Your task to perform on an android device: Go to network settings Image 0: 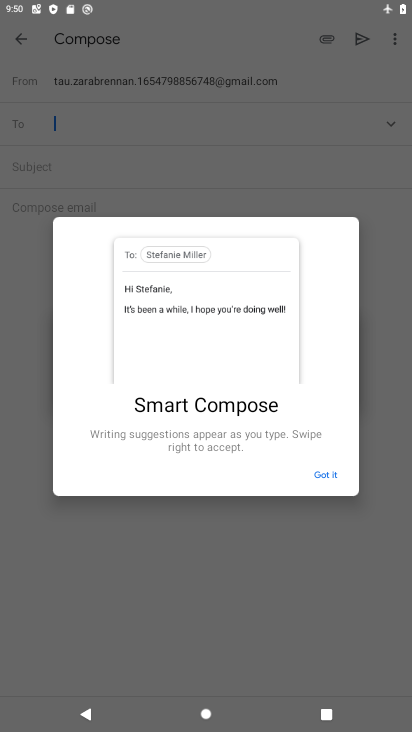
Step 0: press home button
Your task to perform on an android device: Go to network settings Image 1: 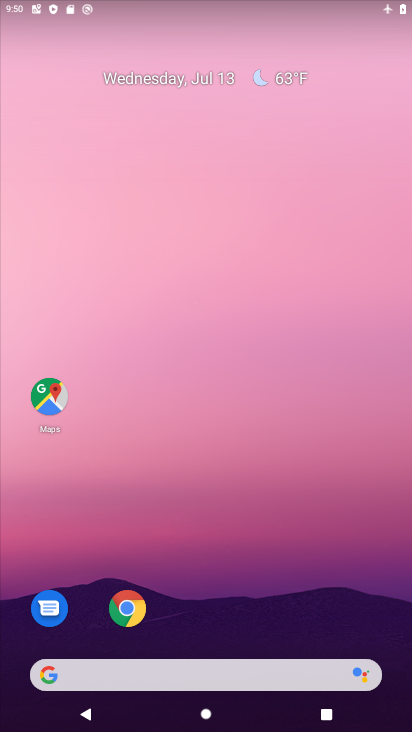
Step 1: drag from (221, 649) to (241, 72)
Your task to perform on an android device: Go to network settings Image 2: 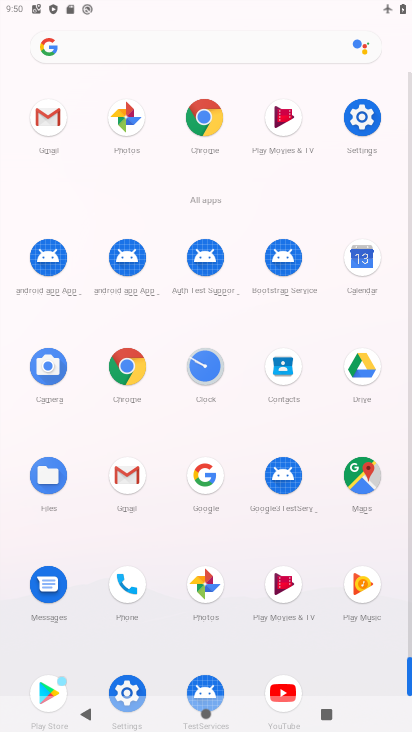
Step 2: drag from (134, 654) to (147, 546)
Your task to perform on an android device: Go to network settings Image 3: 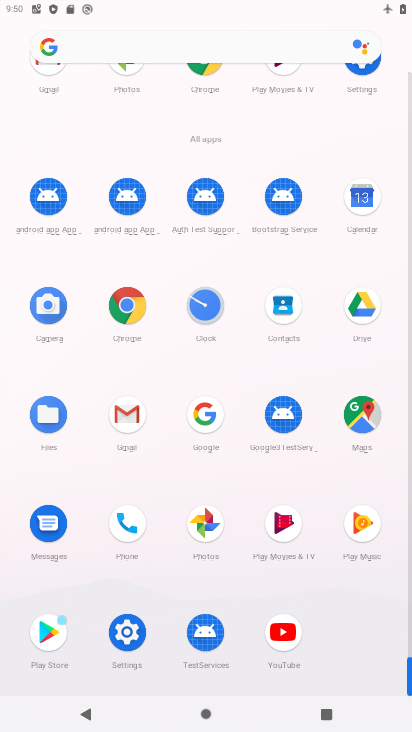
Step 3: click (120, 635)
Your task to perform on an android device: Go to network settings Image 4: 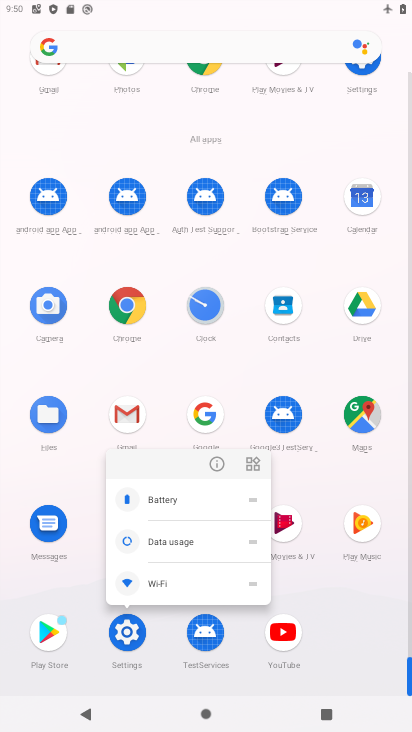
Step 4: click (126, 636)
Your task to perform on an android device: Go to network settings Image 5: 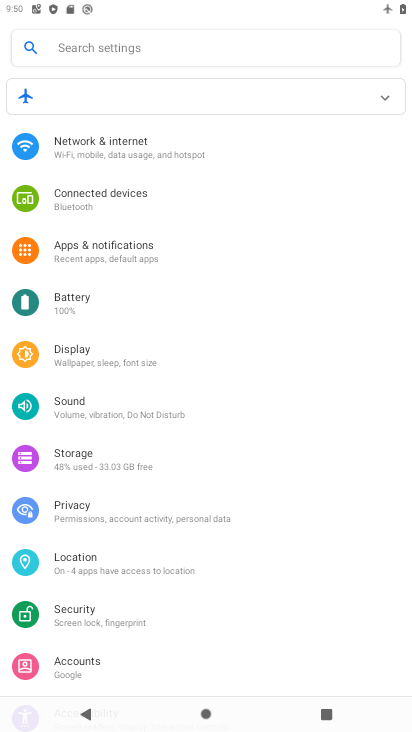
Step 5: click (140, 153)
Your task to perform on an android device: Go to network settings Image 6: 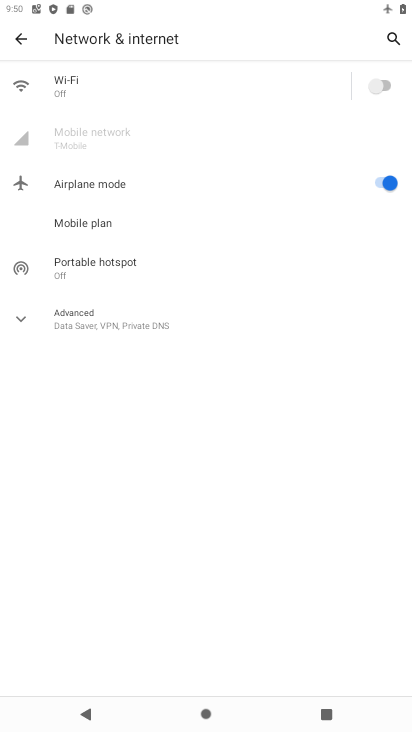
Step 6: task complete